Your task to perform on an android device: open the mobile data screen to see how much data has been used Image 0: 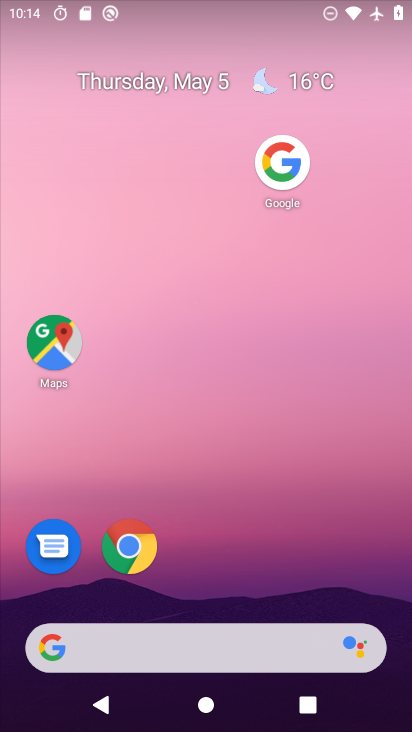
Step 0: drag from (216, 592) to (329, 211)
Your task to perform on an android device: open the mobile data screen to see how much data has been used Image 1: 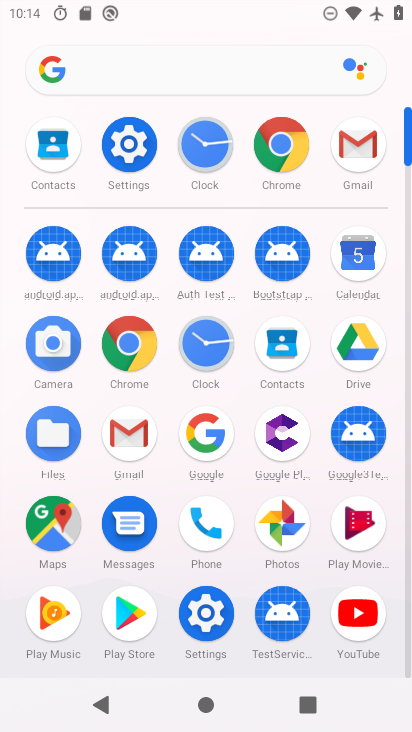
Step 1: click (132, 146)
Your task to perform on an android device: open the mobile data screen to see how much data has been used Image 2: 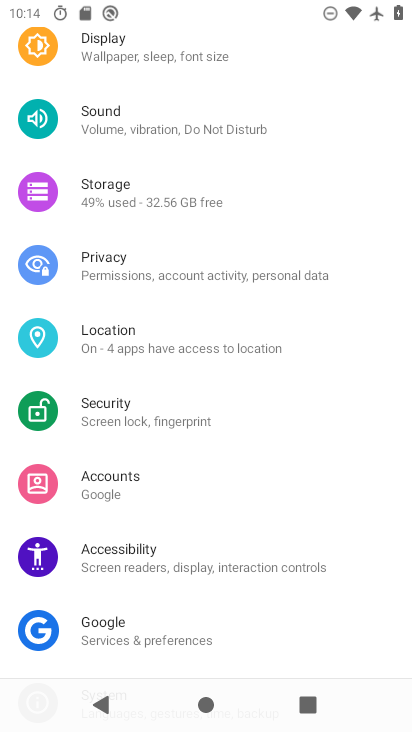
Step 2: drag from (331, 71) to (218, 600)
Your task to perform on an android device: open the mobile data screen to see how much data has been used Image 3: 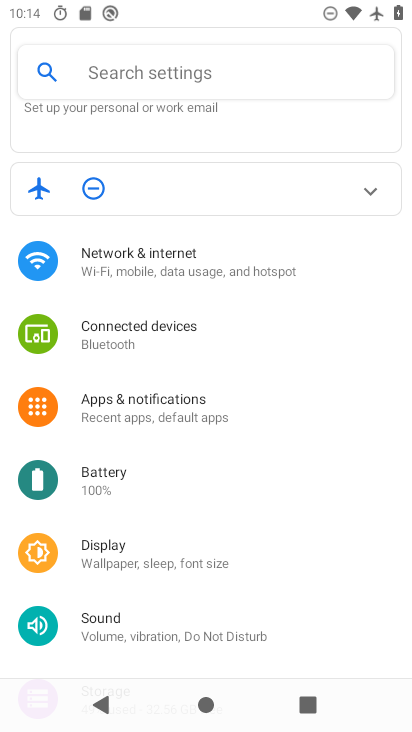
Step 3: click (178, 266)
Your task to perform on an android device: open the mobile data screen to see how much data has been used Image 4: 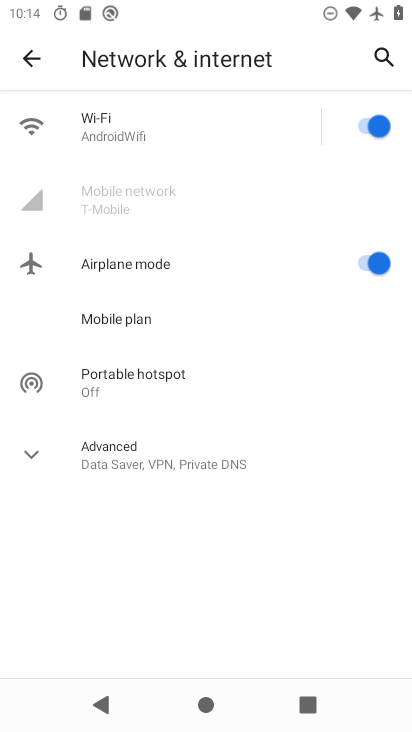
Step 4: task complete